Your task to perform on an android device: Search for Italian restaurants on Maps Image 0: 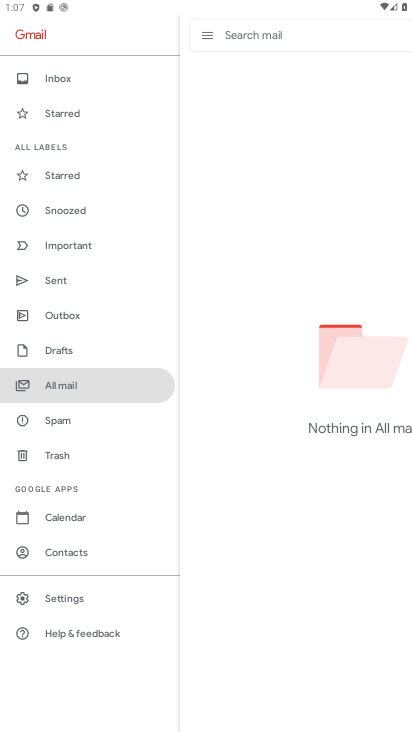
Step 0: press home button
Your task to perform on an android device: Search for Italian restaurants on Maps Image 1: 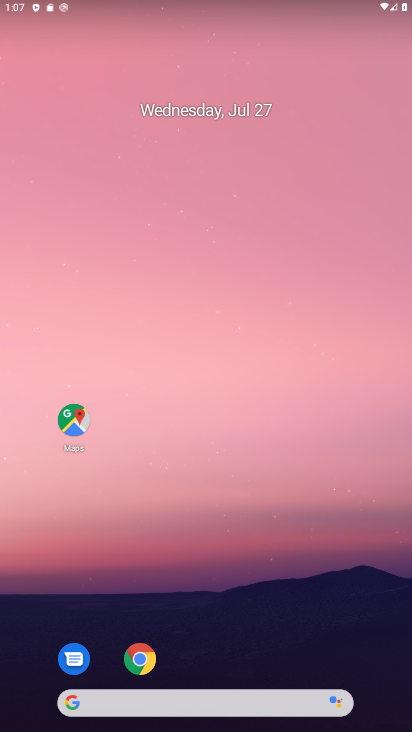
Step 1: drag from (169, 550) to (100, 6)
Your task to perform on an android device: Search for Italian restaurants on Maps Image 2: 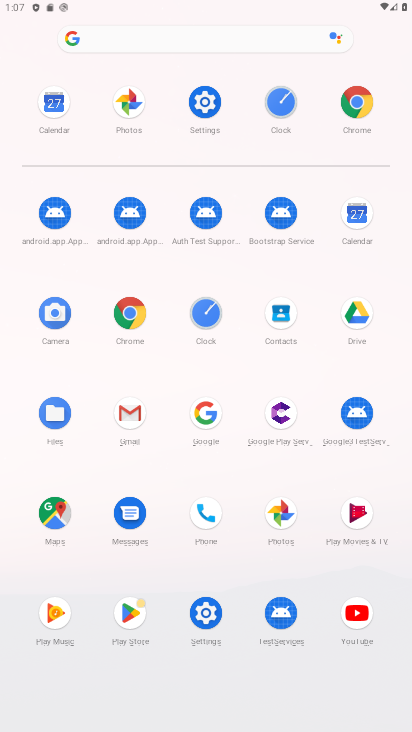
Step 2: click (65, 512)
Your task to perform on an android device: Search for Italian restaurants on Maps Image 3: 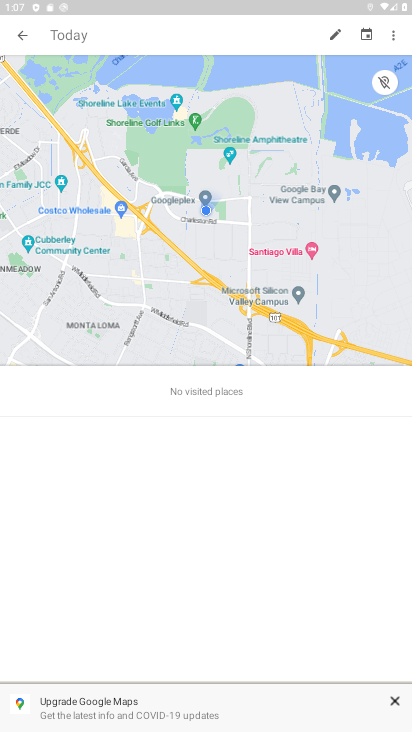
Step 3: click (26, 39)
Your task to perform on an android device: Search for Italian restaurants on Maps Image 4: 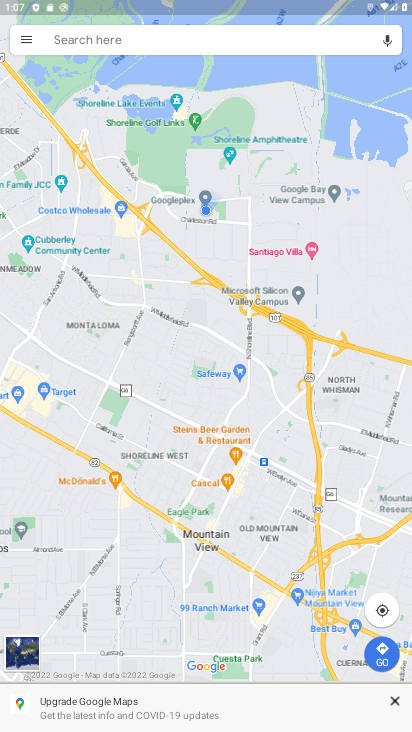
Step 4: click (197, 35)
Your task to perform on an android device: Search for Italian restaurants on Maps Image 5: 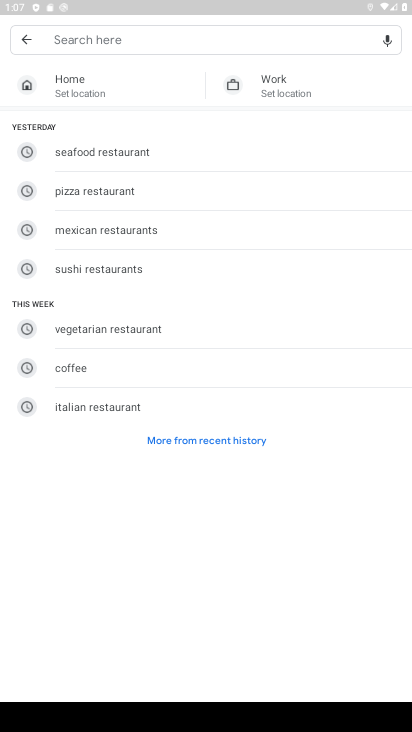
Step 5: type "Italian restaurants"
Your task to perform on an android device: Search for Italian restaurants on Maps Image 6: 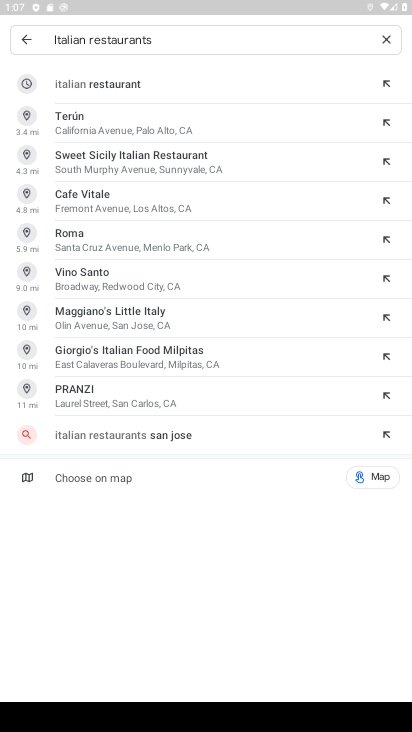
Step 6: press enter
Your task to perform on an android device: Search for Italian restaurants on Maps Image 7: 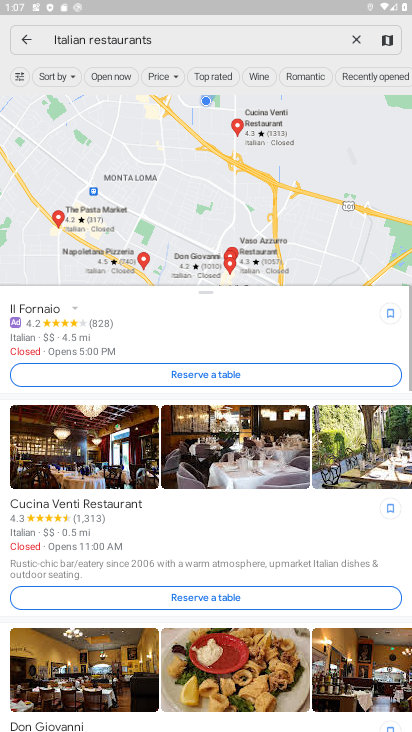
Step 7: task complete